Your task to perform on an android device: open app "NewsBreak: Local News & Alerts" (install if not already installed), go to login, and select forgot password Image 0: 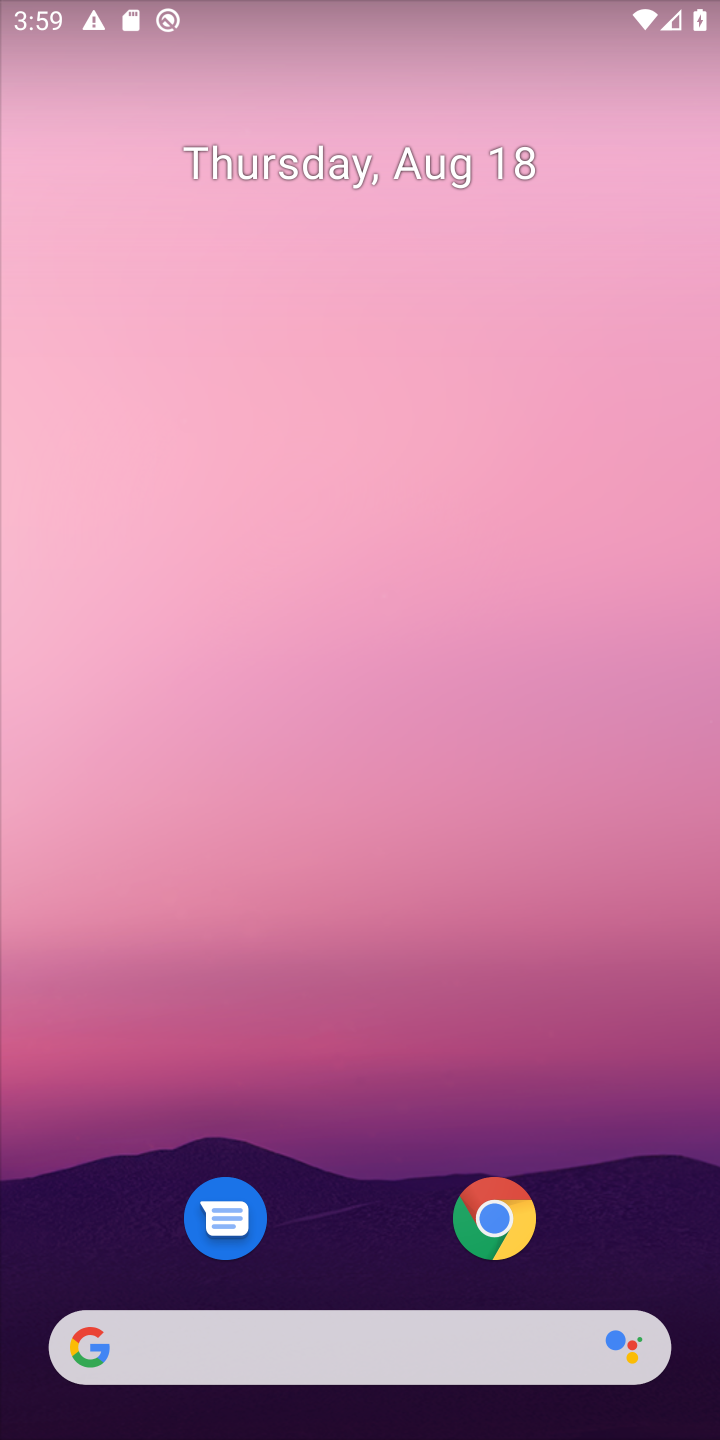
Step 0: drag from (382, 1127) to (305, 218)
Your task to perform on an android device: open app "NewsBreak: Local News & Alerts" (install if not already installed), go to login, and select forgot password Image 1: 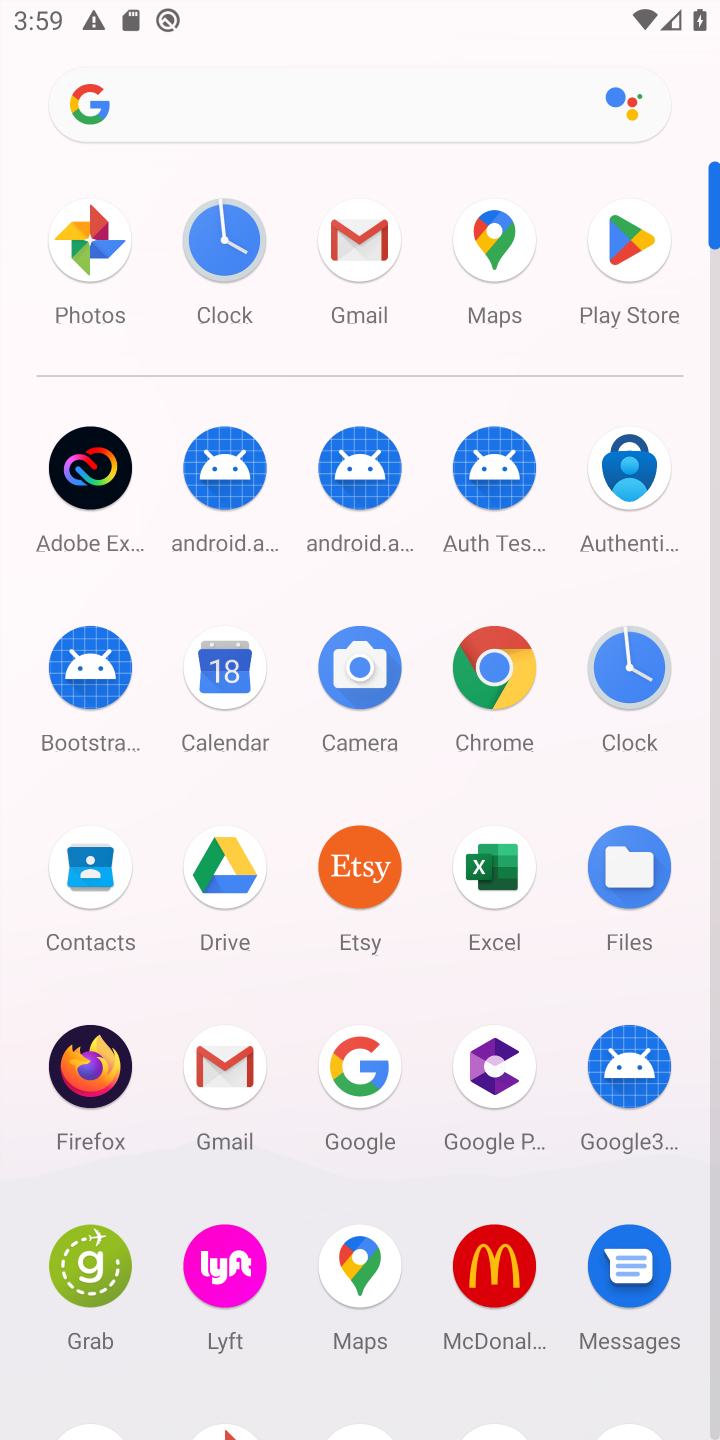
Step 1: click (627, 247)
Your task to perform on an android device: open app "NewsBreak: Local News & Alerts" (install if not already installed), go to login, and select forgot password Image 2: 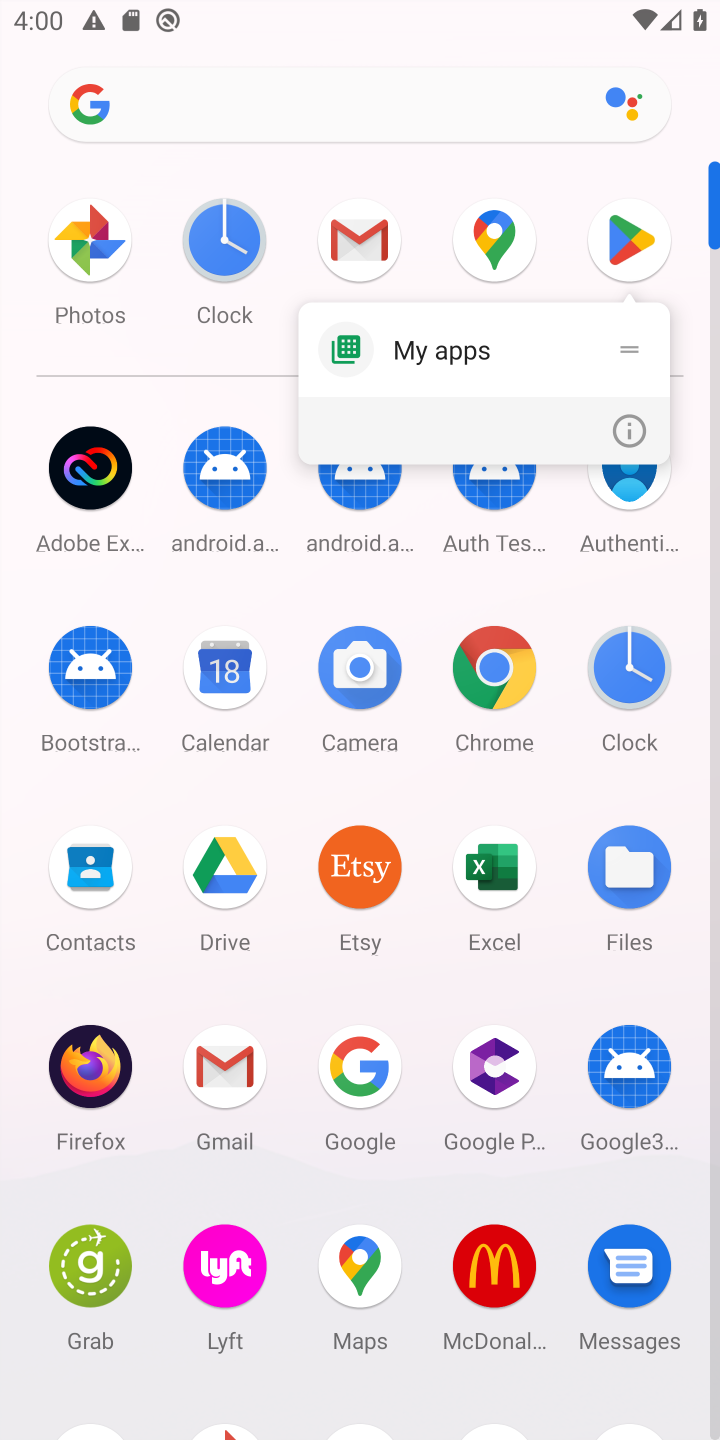
Step 2: click (627, 247)
Your task to perform on an android device: open app "NewsBreak: Local News & Alerts" (install if not already installed), go to login, and select forgot password Image 3: 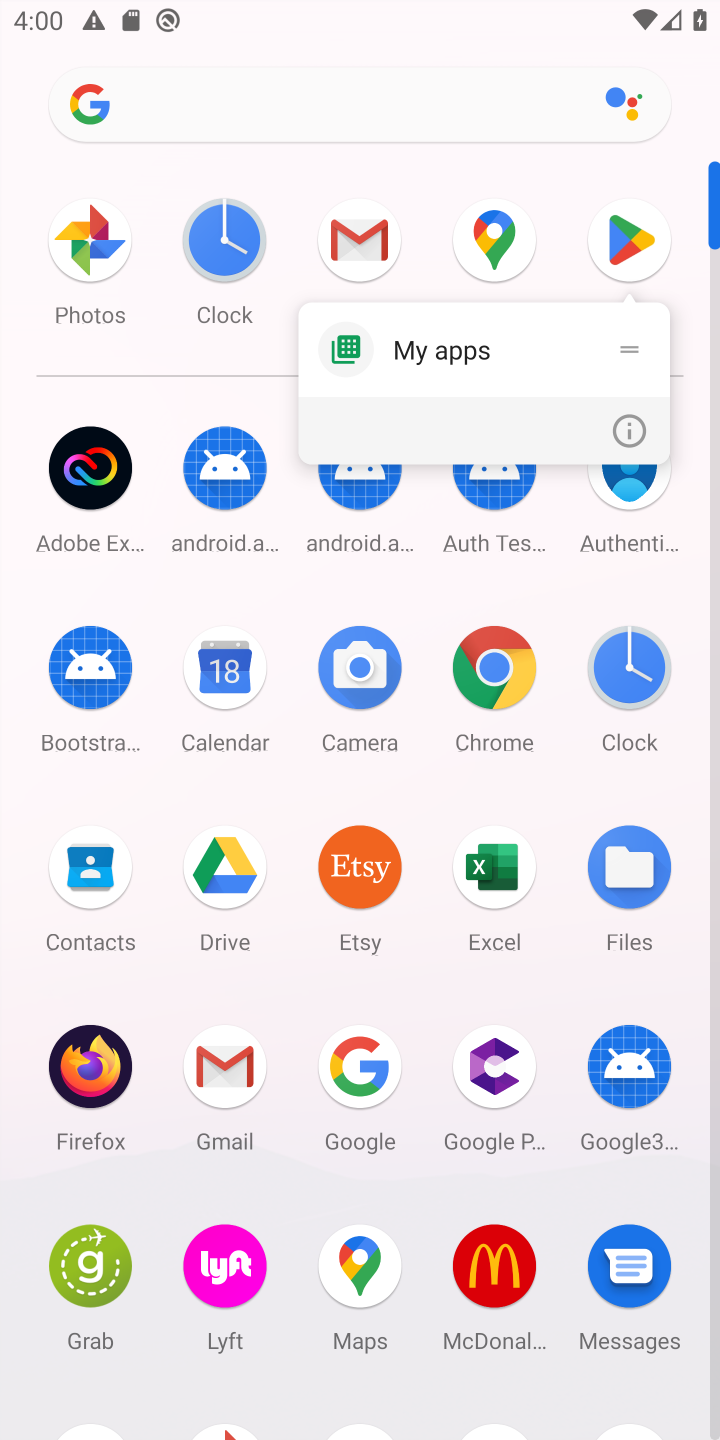
Step 3: click (627, 247)
Your task to perform on an android device: open app "NewsBreak: Local News & Alerts" (install if not already installed), go to login, and select forgot password Image 4: 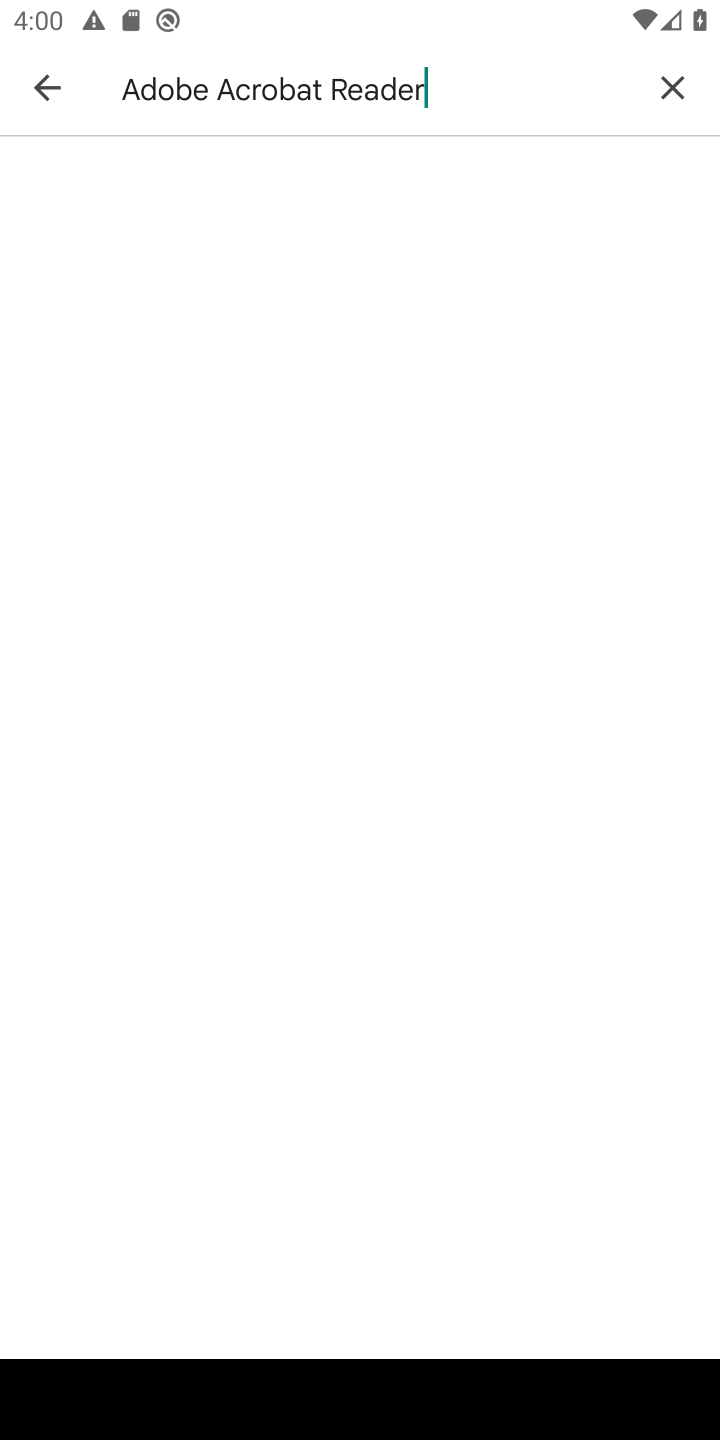
Step 4: click (672, 92)
Your task to perform on an android device: open app "NewsBreak: Local News & Alerts" (install if not already installed), go to login, and select forgot password Image 5: 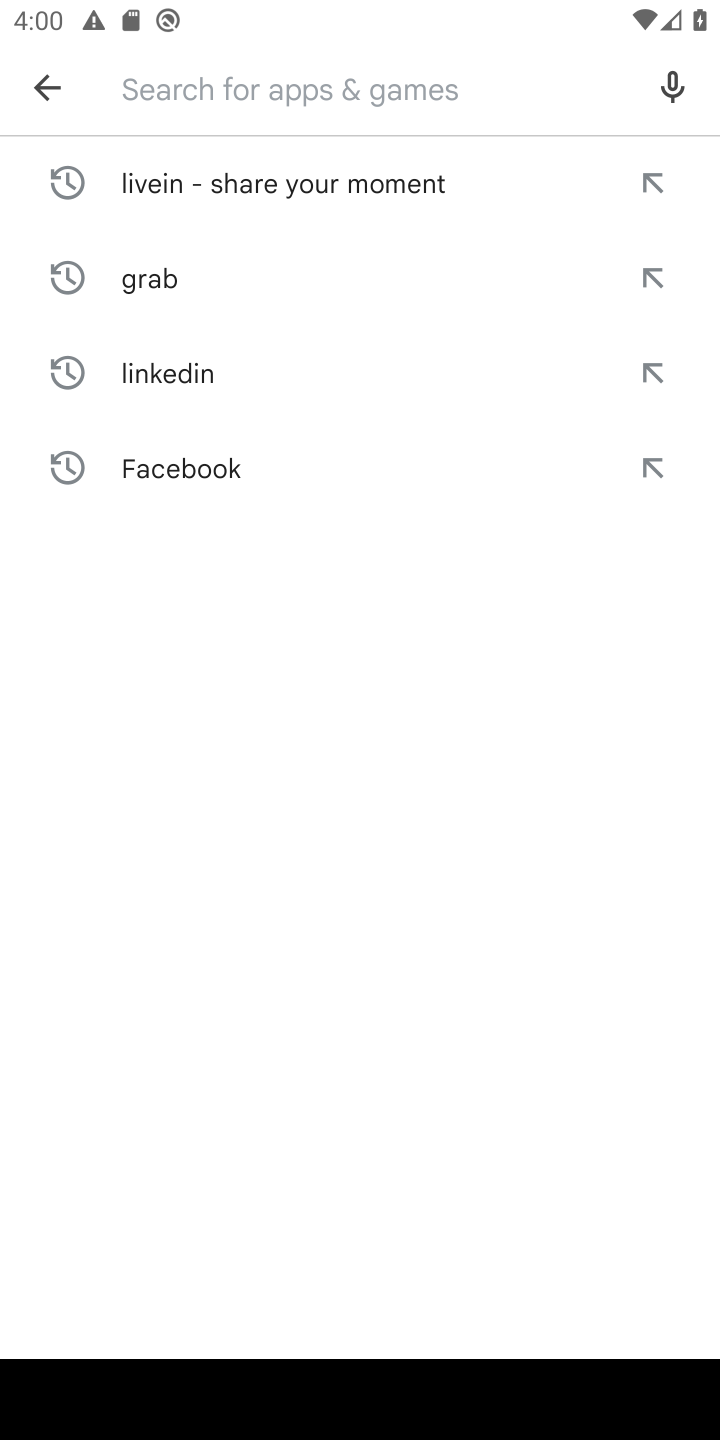
Step 5: type "NewsBreak: Local News & Alerts"
Your task to perform on an android device: open app "NewsBreak: Local News & Alerts" (install if not already installed), go to login, and select forgot password Image 6: 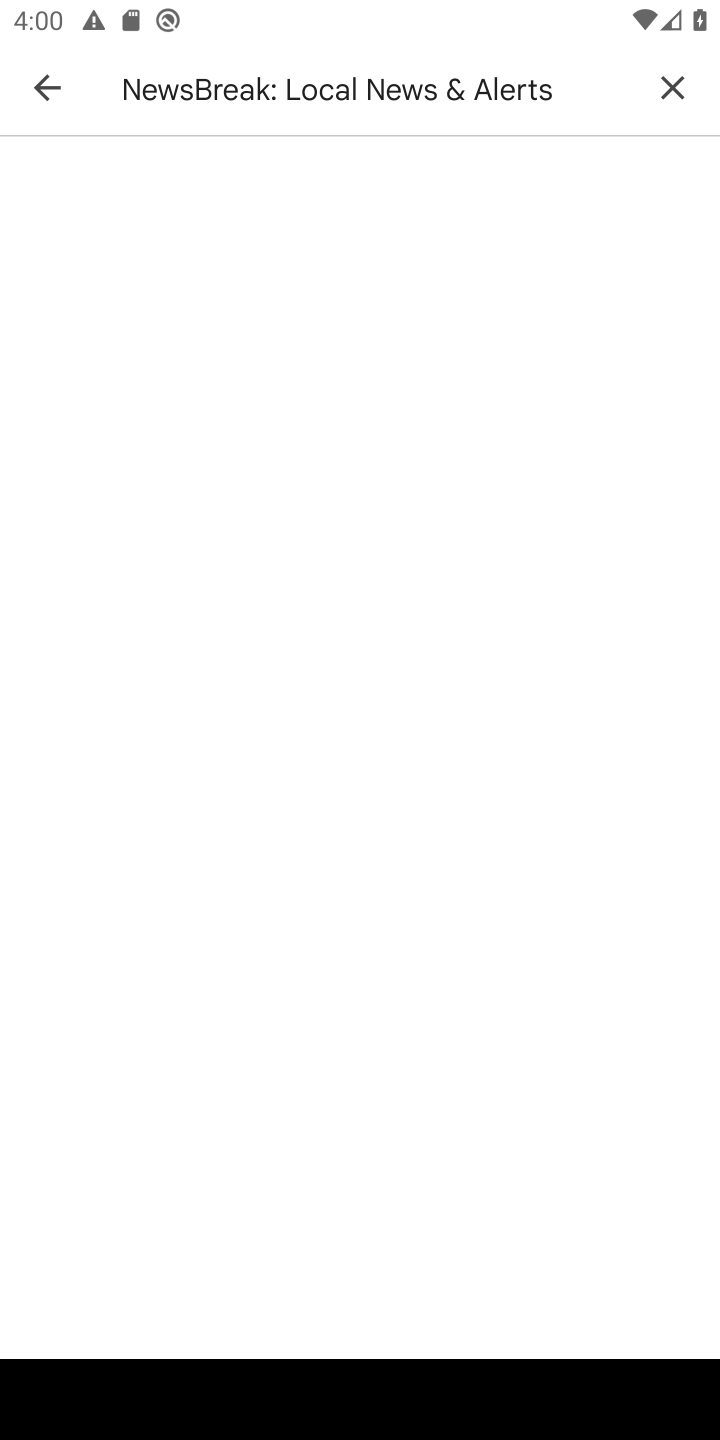
Step 6: task complete